Your task to perform on an android device: Find coffee shops on Maps Image 0: 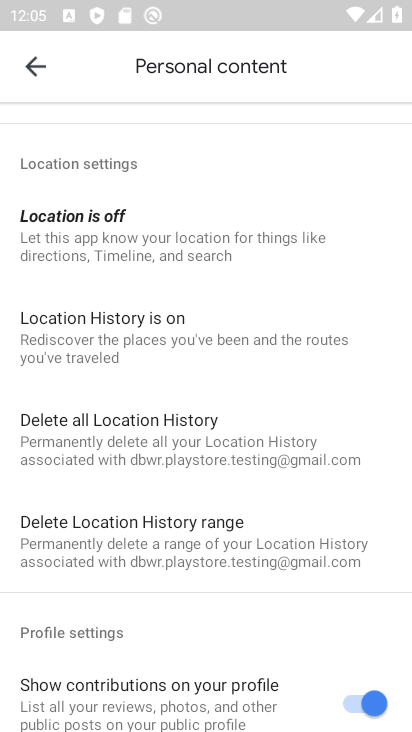
Step 0: press home button
Your task to perform on an android device: Find coffee shops on Maps Image 1: 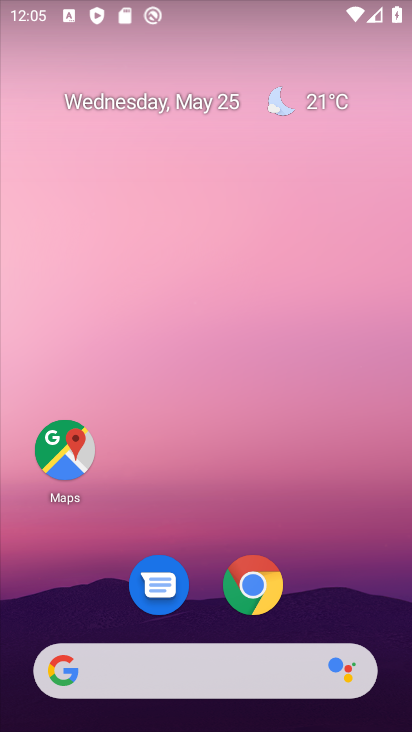
Step 1: click (51, 444)
Your task to perform on an android device: Find coffee shops on Maps Image 2: 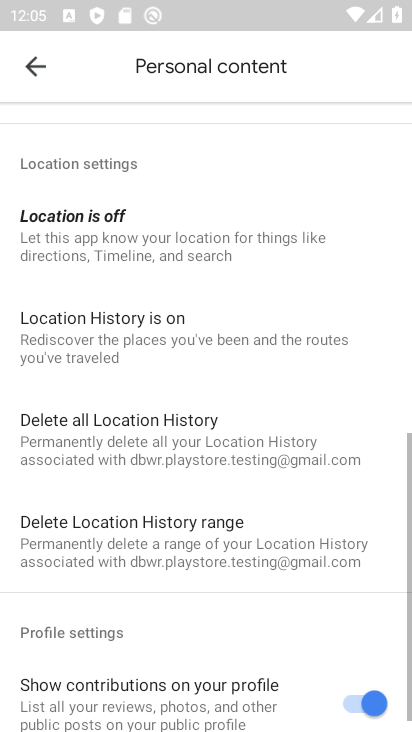
Step 2: click (33, 62)
Your task to perform on an android device: Find coffee shops on Maps Image 3: 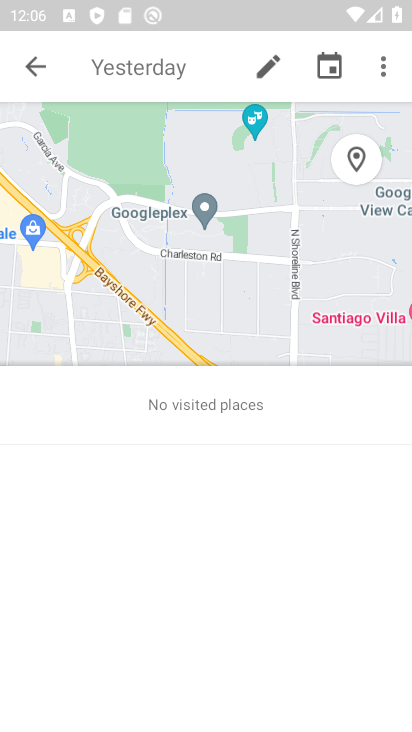
Step 3: click (33, 60)
Your task to perform on an android device: Find coffee shops on Maps Image 4: 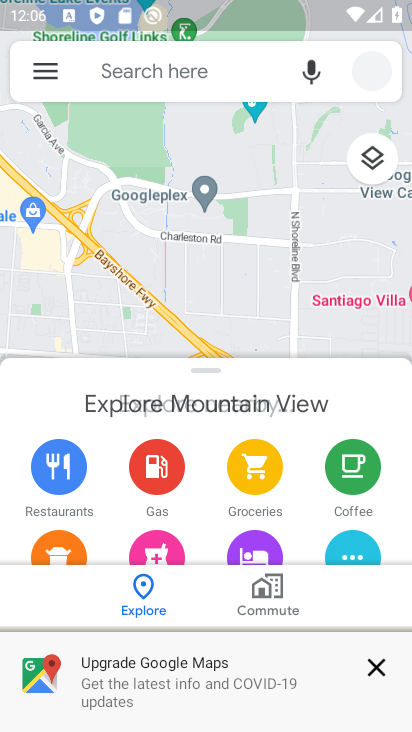
Step 4: click (142, 71)
Your task to perform on an android device: Find coffee shops on Maps Image 5: 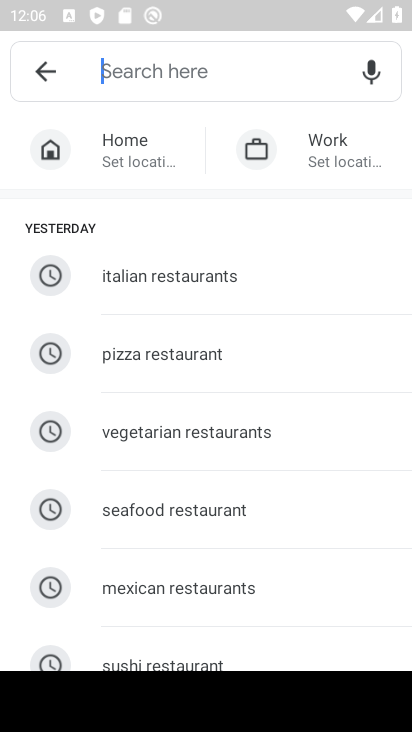
Step 5: drag from (160, 504) to (189, 196)
Your task to perform on an android device: Find coffee shops on Maps Image 6: 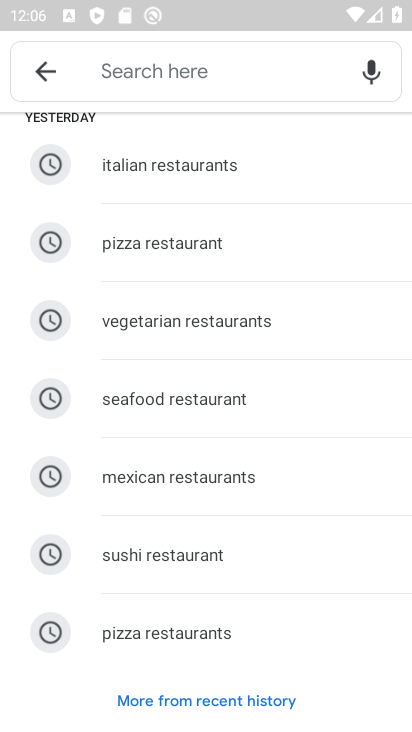
Step 6: click (237, 68)
Your task to perform on an android device: Find coffee shops on Maps Image 7: 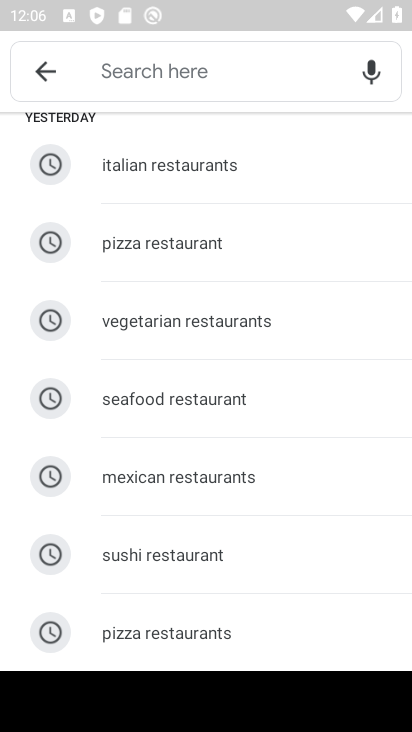
Step 7: type "coffee"
Your task to perform on an android device: Find coffee shops on Maps Image 8: 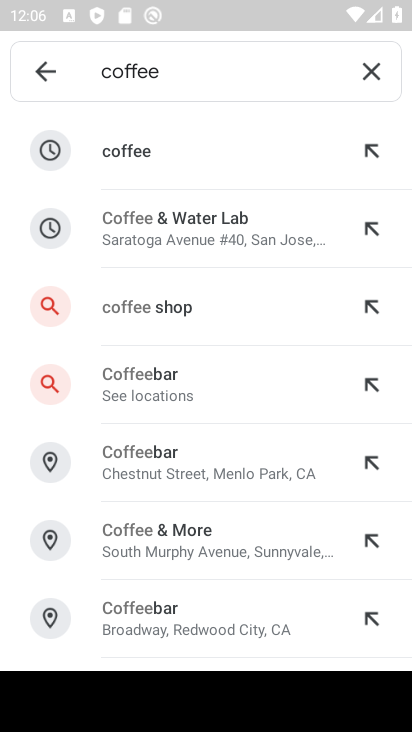
Step 8: click (196, 302)
Your task to perform on an android device: Find coffee shops on Maps Image 9: 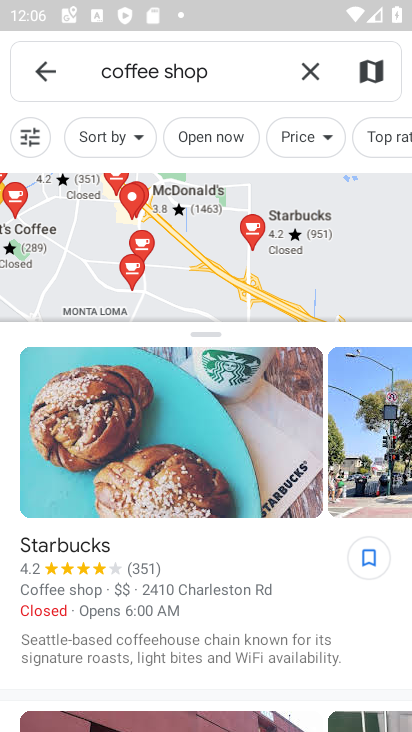
Step 9: task complete